Your task to perform on an android device: open app "Microsoft Outlook" (install if not already installed) Image 0: 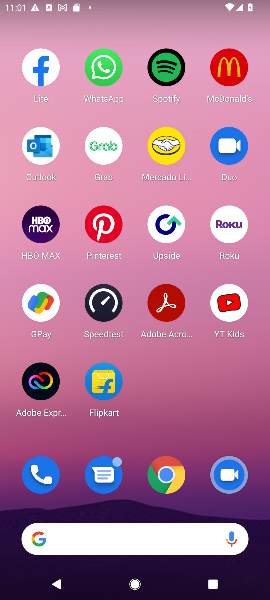
Step 0: drag from (175, 425) to (134, 42)
Your task to perform on an android device: open app "Microsoft Outlook" (install if not already installed) Image 1: 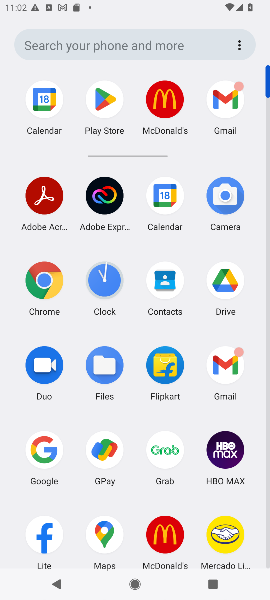
Step 1: click (103, 91)
Your task to perform on an android device: open app "Microsoft Outlook" (install if not already installed) Image 2: 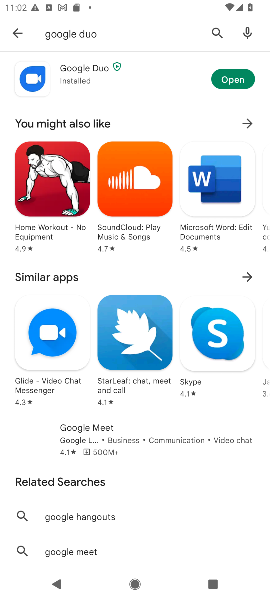
Step 2: click (9, 34)
Your task to perform on an android device: open app "Microsoft Outlook" (install if not already installed) Image 3: 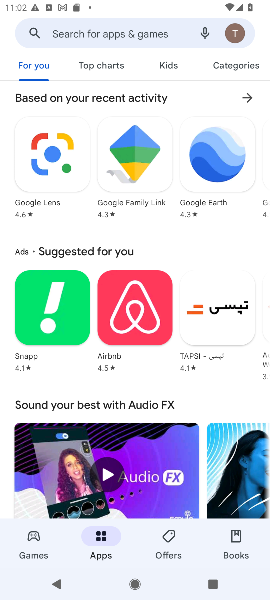
Step 3: click (54, 35)
Your task to perform on an android device: open app "Microsoft Outlook" (install if not already installed) Image 4: 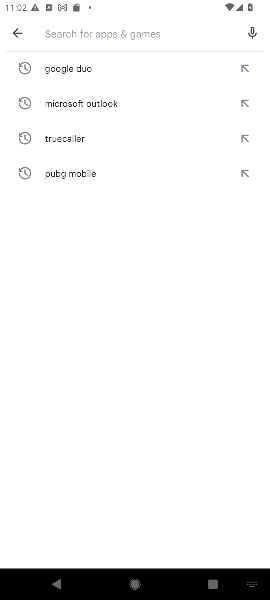
Step 4: type "Microsoft Outlook"
Your task to perform on an android device: open app "Microsoft Outlook" (install if not already installed) Image 5: 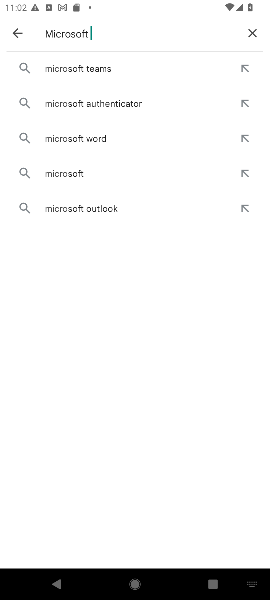
Step 5: type ""
Your task to perform on an android device: open app "Microsoft Outlook" (install if not already installed) Image 6: 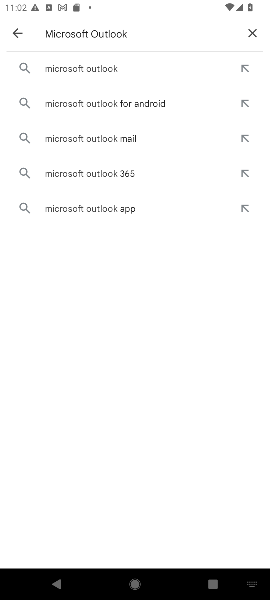
Step 6: click (60, 68)
Your task to perform on an android device: open app "Microsoft Outlook" (install if not already installed) Image 7: 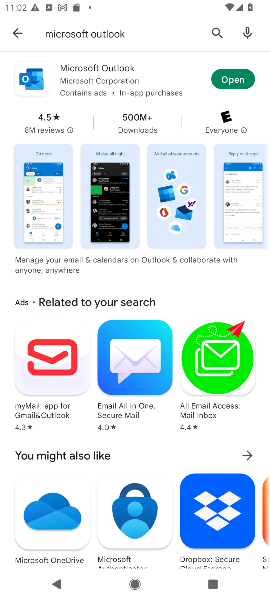
Step 7: click (224, 76)
Your task to perform on an android device: open app "Microsoft Outlook" (install if not already installed) Image 8: 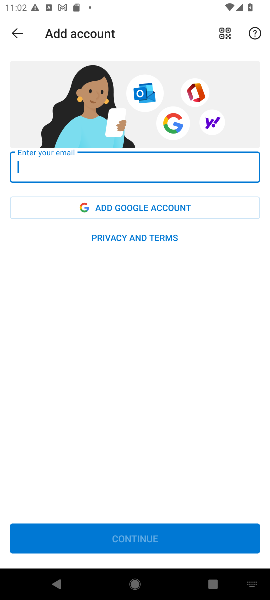
Step 8: task complete